Your task to perform on an android device: Is it going to rain tomorrow? Image 0: 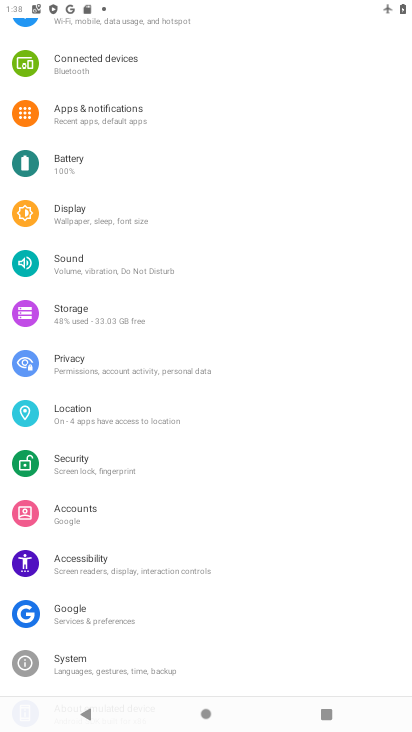
Step 0: press home button
Your task to perform on an android device: Is it going to rain tomorrow? Image 1: 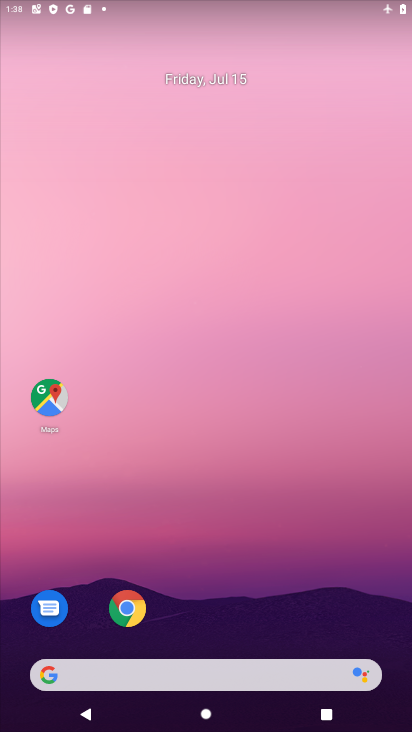
Step 1: click (166, 668)
Your task to perform on an android device: Is it going to rain tomorrow? Image 2: 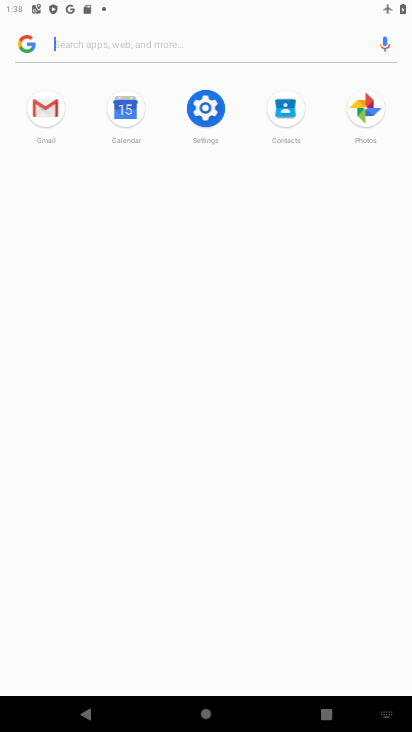
Step 2: type "Is it going to rain tomorrow?"
Your task to perform on an android device: Is it going to rain tomorrow? Image 3: 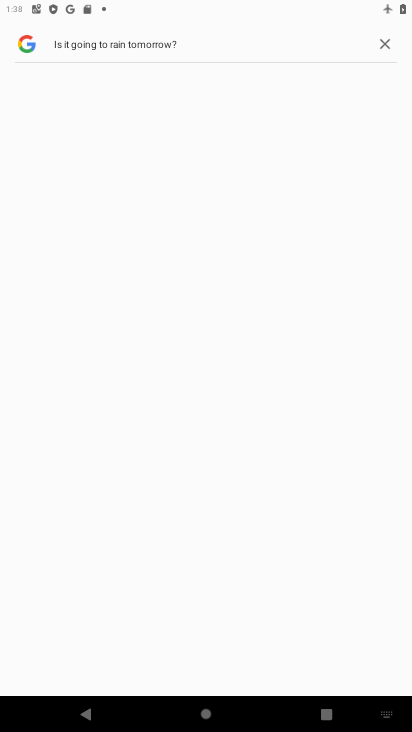
Step 3: press enter
Your task to perform on an android device: Is it going to rain tomorrow? Image 4: 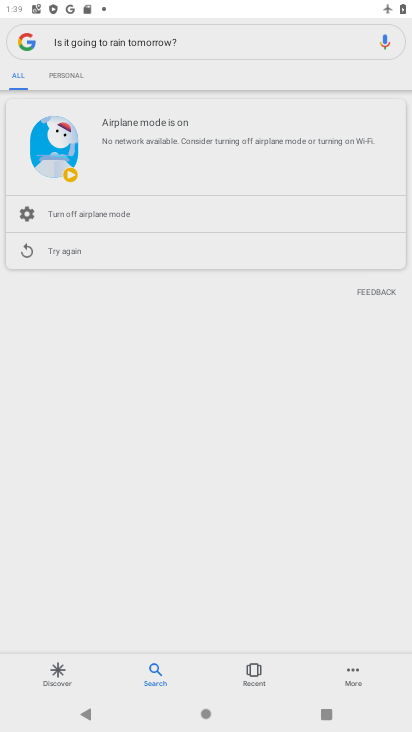
Step 4: task complete